Your task to perform on an android device: open a bookmark in the chrome app Image 0: 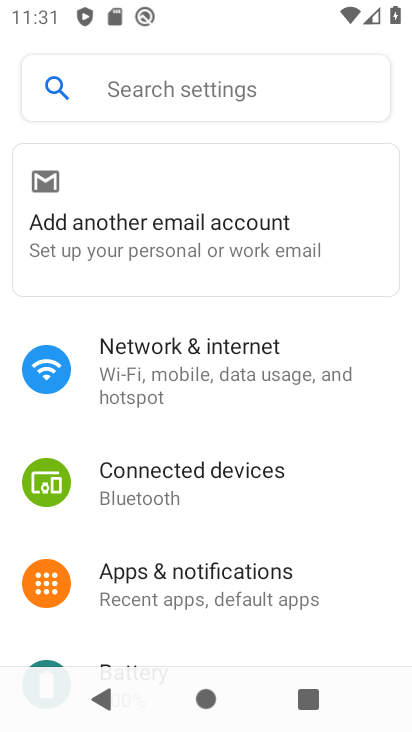
Step 0: press home button
Your task to perform on an android device: open a bookmark in the chrome app Image 1: 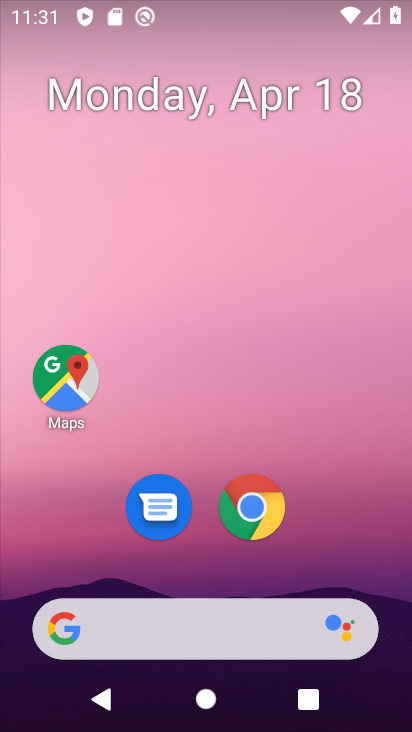
Step 1: click (269, 528)
Your task to perform on an android device: open a bookmark in the chrome app Image 2: 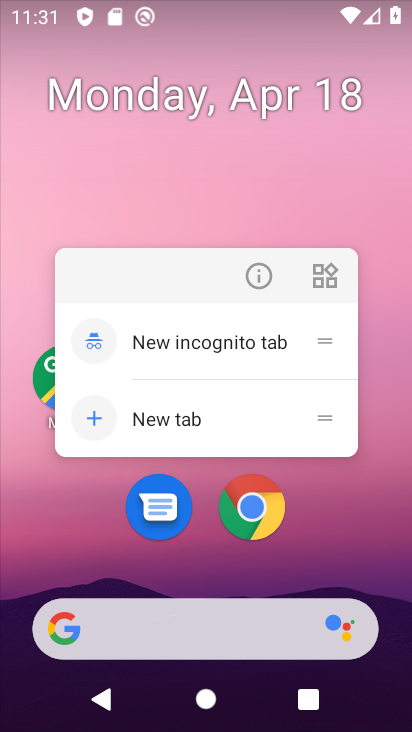
Step 2: click (254, 530)
Your task to perform on an android device: open a bookmark in the chrome app Image 3: 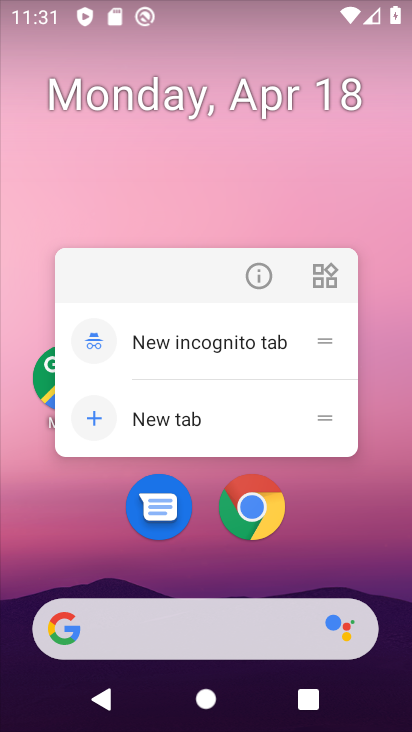
Step 3: click (257, 521)
Your task to perform on an android device: open a bookmark in the chrome app Image 4: 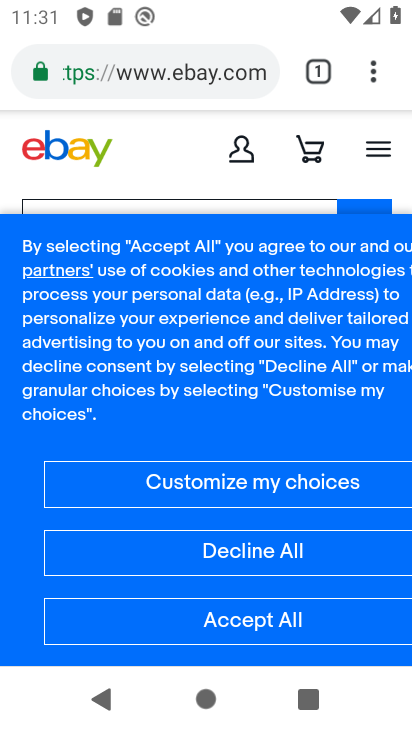
Step 4: click (371, 79)
Your task to perform on an android device: open a bookmark in the chrome app Image 5: 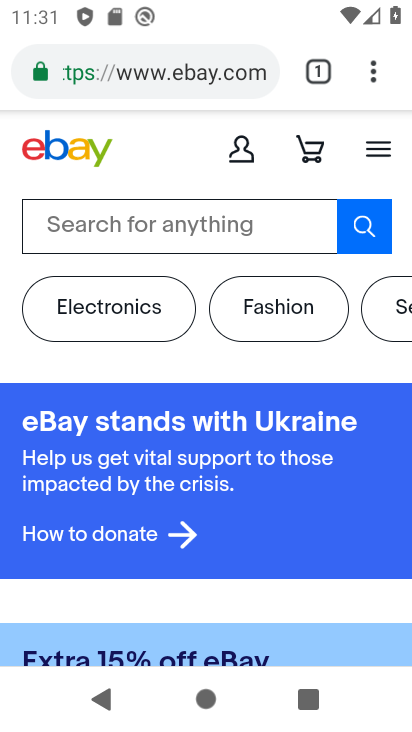
Step 5: task complete